Your task to perform on an android device: What's the weather going to be tomorrow? Image 0: 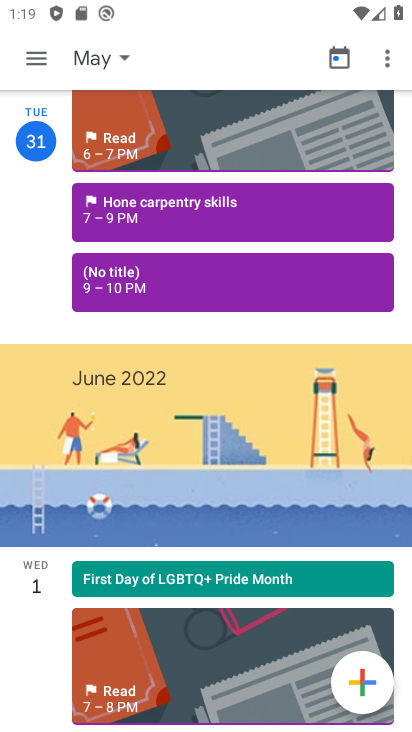
Step 0: press home button
Your task to perform on an android device: What's the weather going to be tomorrow? Image 1: 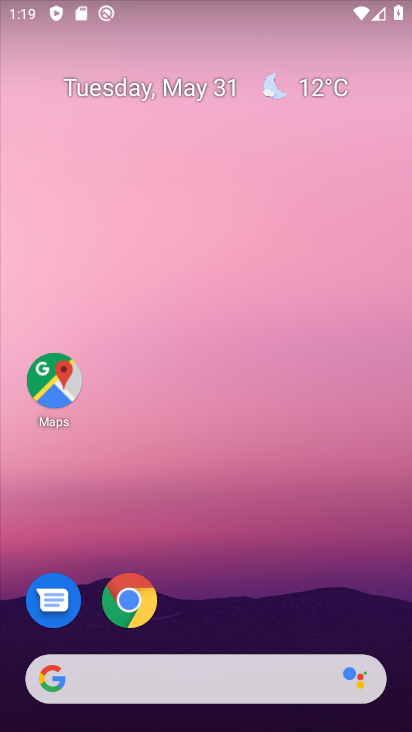
Step 1: click (326, 86)
Your task to perform on an android device: What's the weather going to be tomorrow? Image 2: 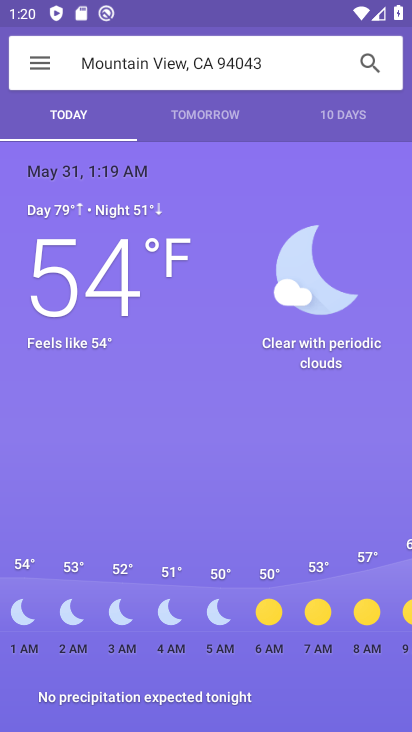
Step 2: click (189, 115)
Your task to perform on an android device: What's the weather going to be tomorrow? Image 3: 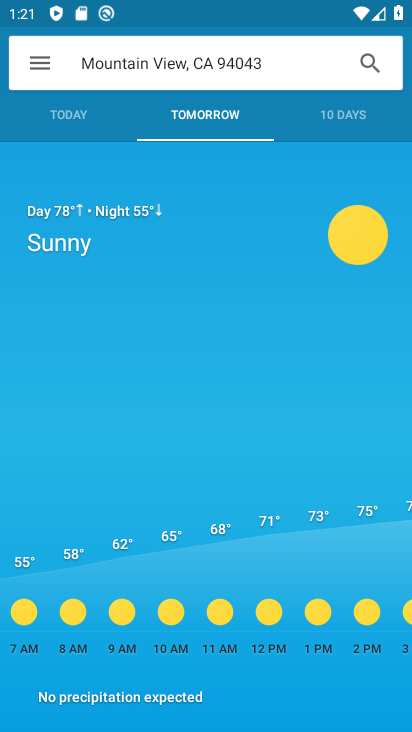
Step 3: task complete